Your task to perform on an android device: all mails in gmail Image 0: 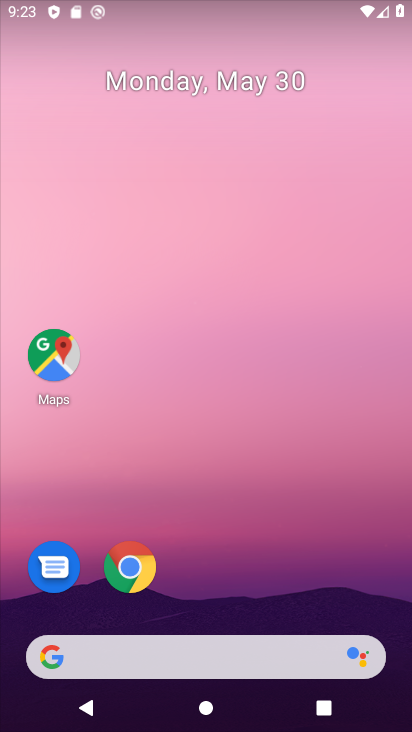
Step 0: drag from (271, 580) to (322, 202)
Your task to perform on an android device: all mails in gmail Image 1: 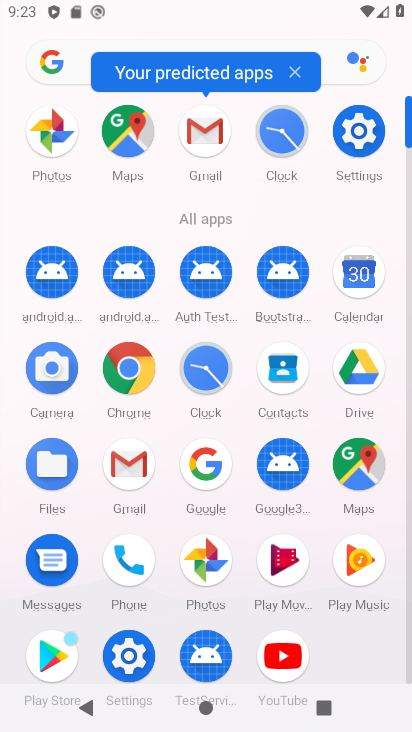
Step 1: drag from (134, 454) to (135, 299)
Your task to perform on an android device: all mails in gmail Image 2: 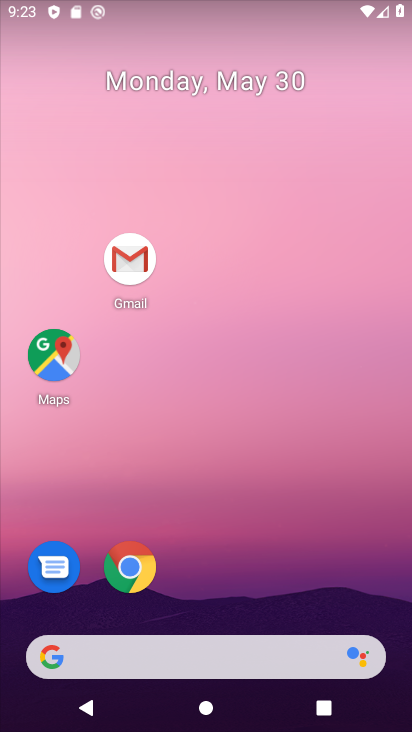
Step 2: click (130, 271)
Your task to perform on an android device: all mails in gmail Image 3: 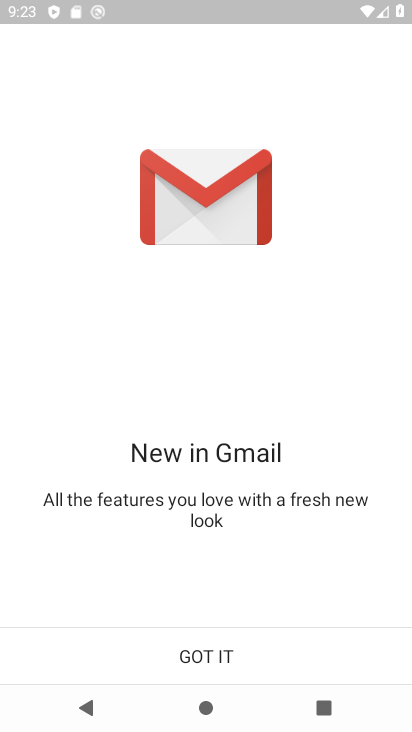
Step 3: click (320, 656)
Your task to perform on an android device: all mails in gmail Image 4: 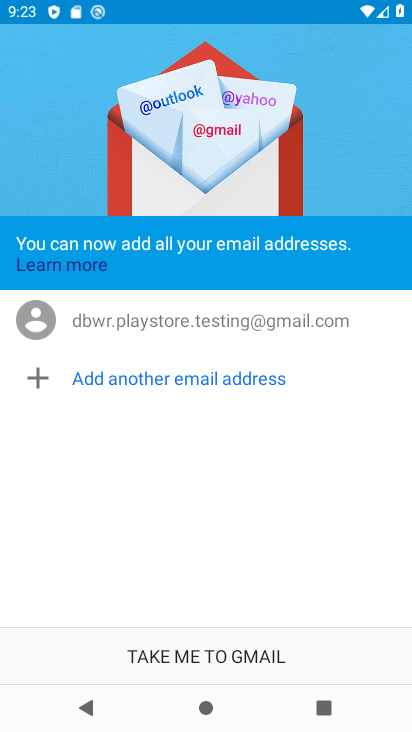
Step 4: click (320, 656)
Your task to perform on an android device: all mails in gmail Image 5: 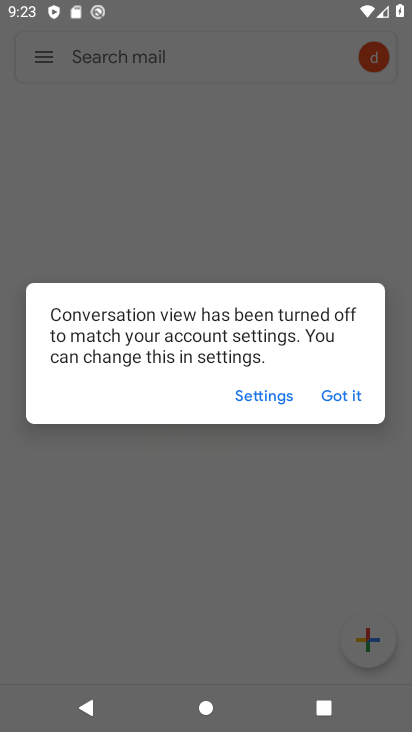
Step 5: click (370, 395)
Your task to perform on an android device: all mails in gmail Image 6: 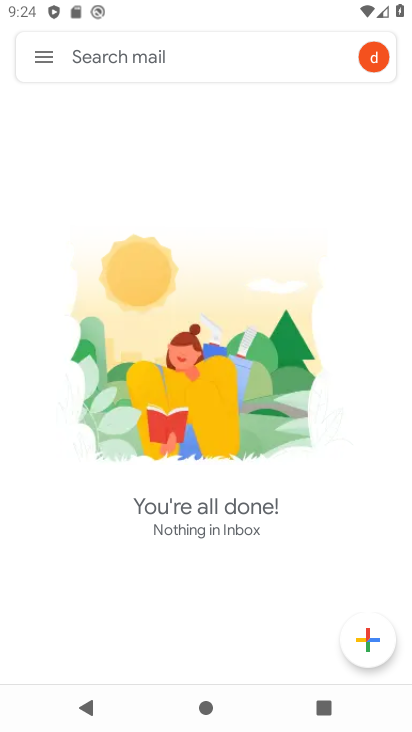
Step 6: click (44, 74)
Your task to perform on an android device: all mails in gmail Image 7: 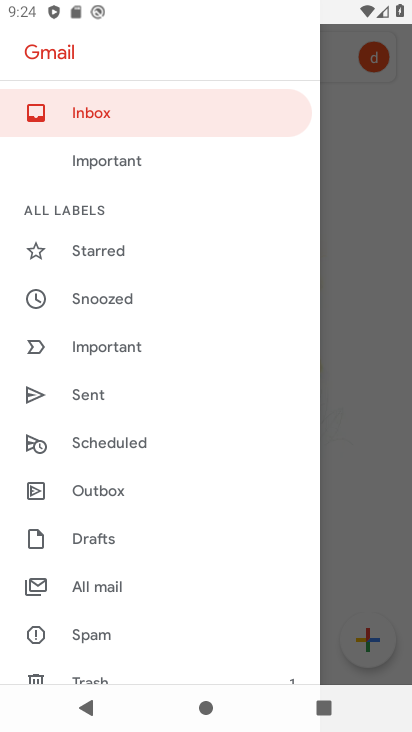
Step 7: click (118, 580)
Your task to perform on an android device: all mails in gmail Image 8: 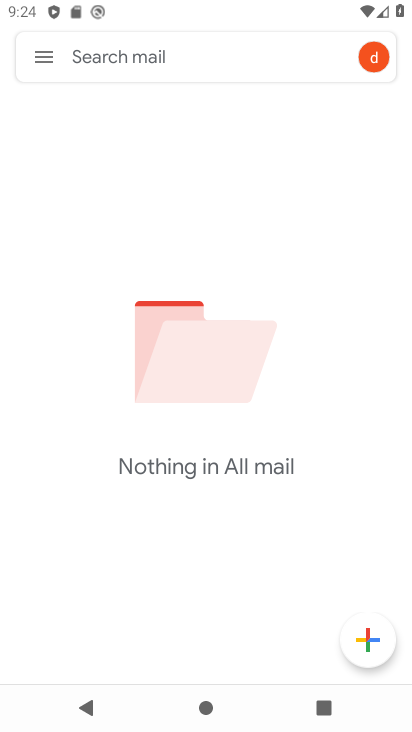
Step 8: task complete